Your task to perform on an android device: check google app version Image 0: 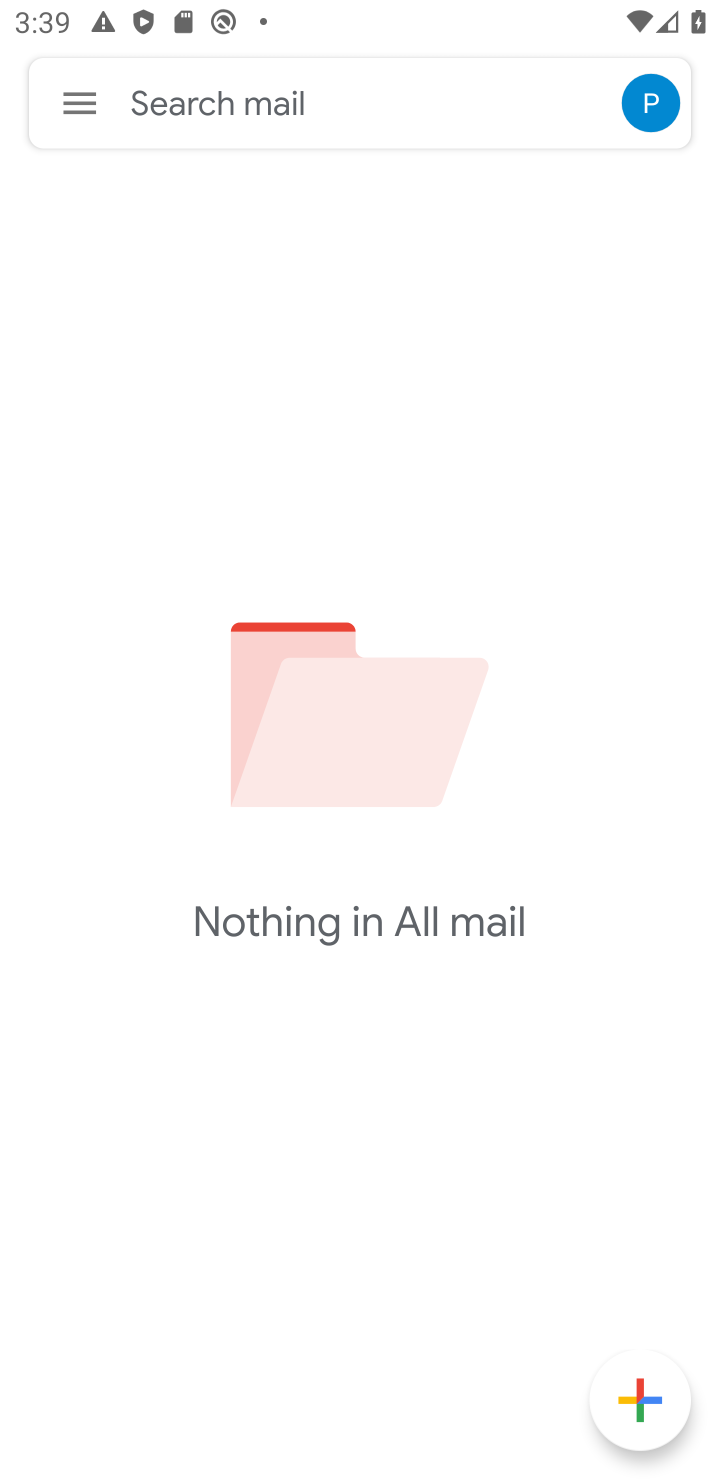
Step 0: press home button
Your task to perform on an android device: check google app version Image 1: 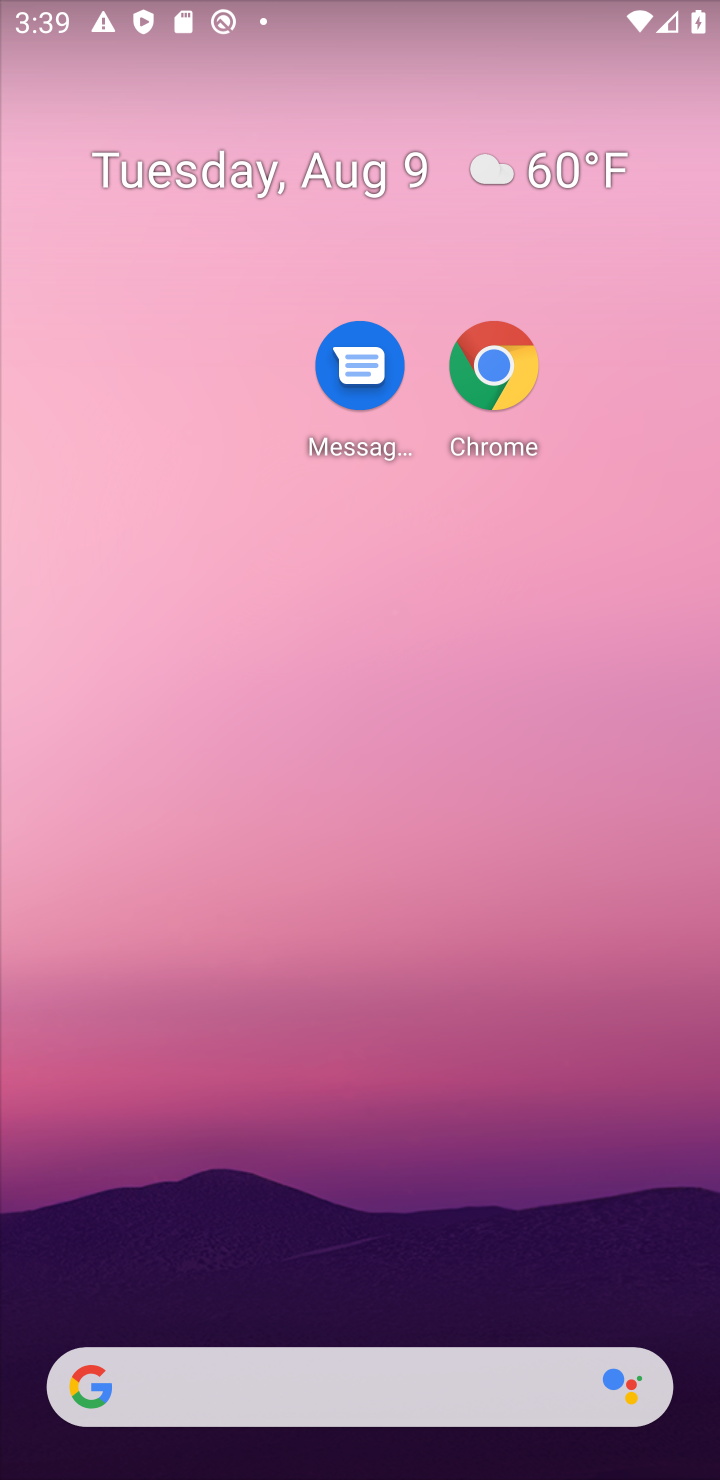
Step 1: drag from (389, 1019) to (461, 243)
Your task to perform on an android device: check google app version Image 2: 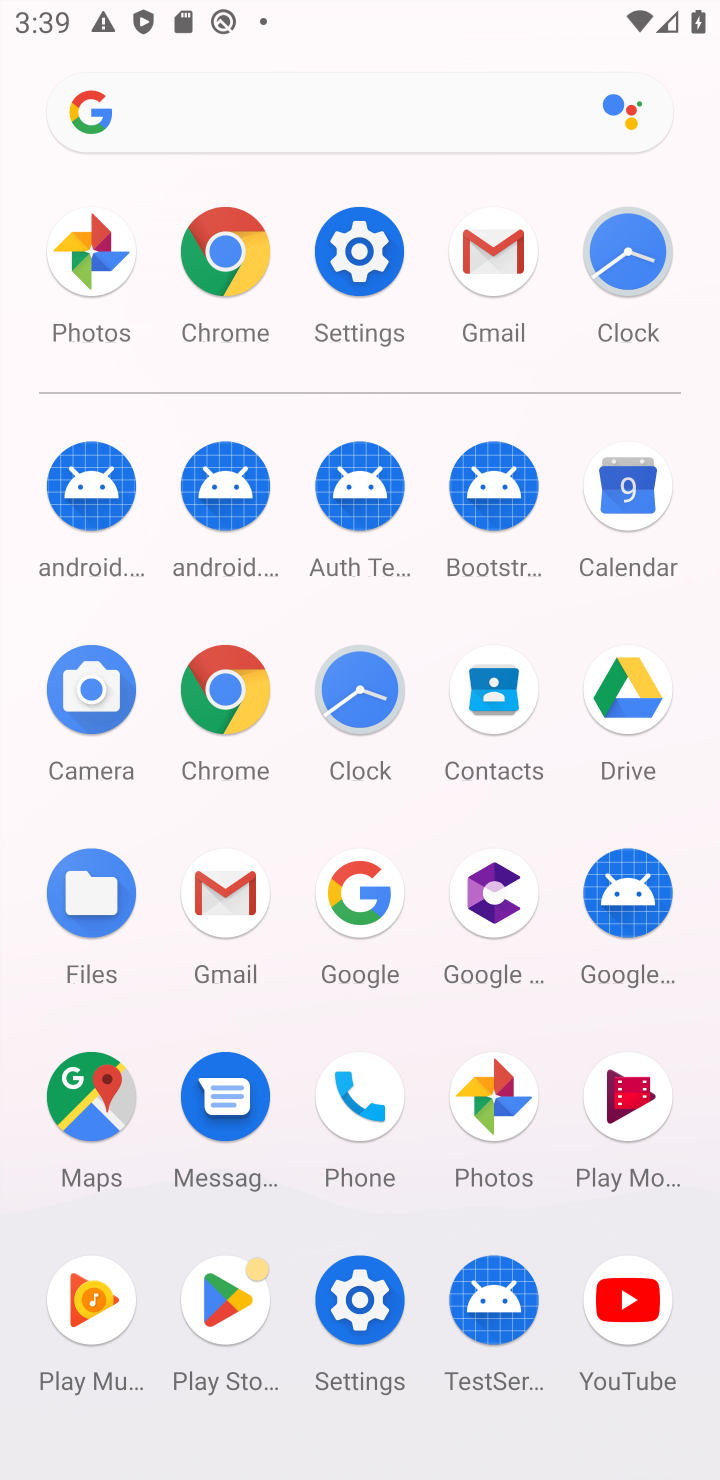
Step 2: click (375, 867)
Your task to perform on an android device: check google app version Image 3: 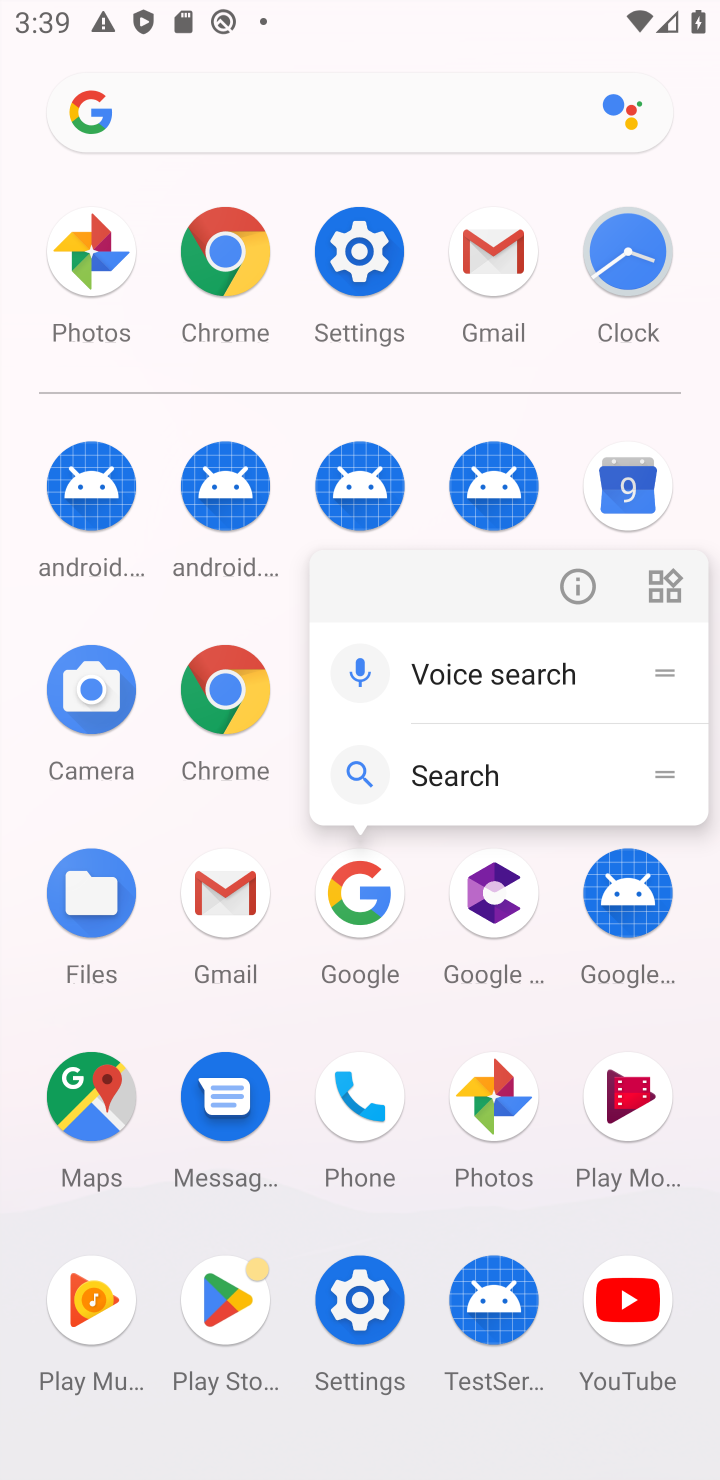
Step 3: click (356, 911)
Your task to perform on an android device: check google app version Image 4: 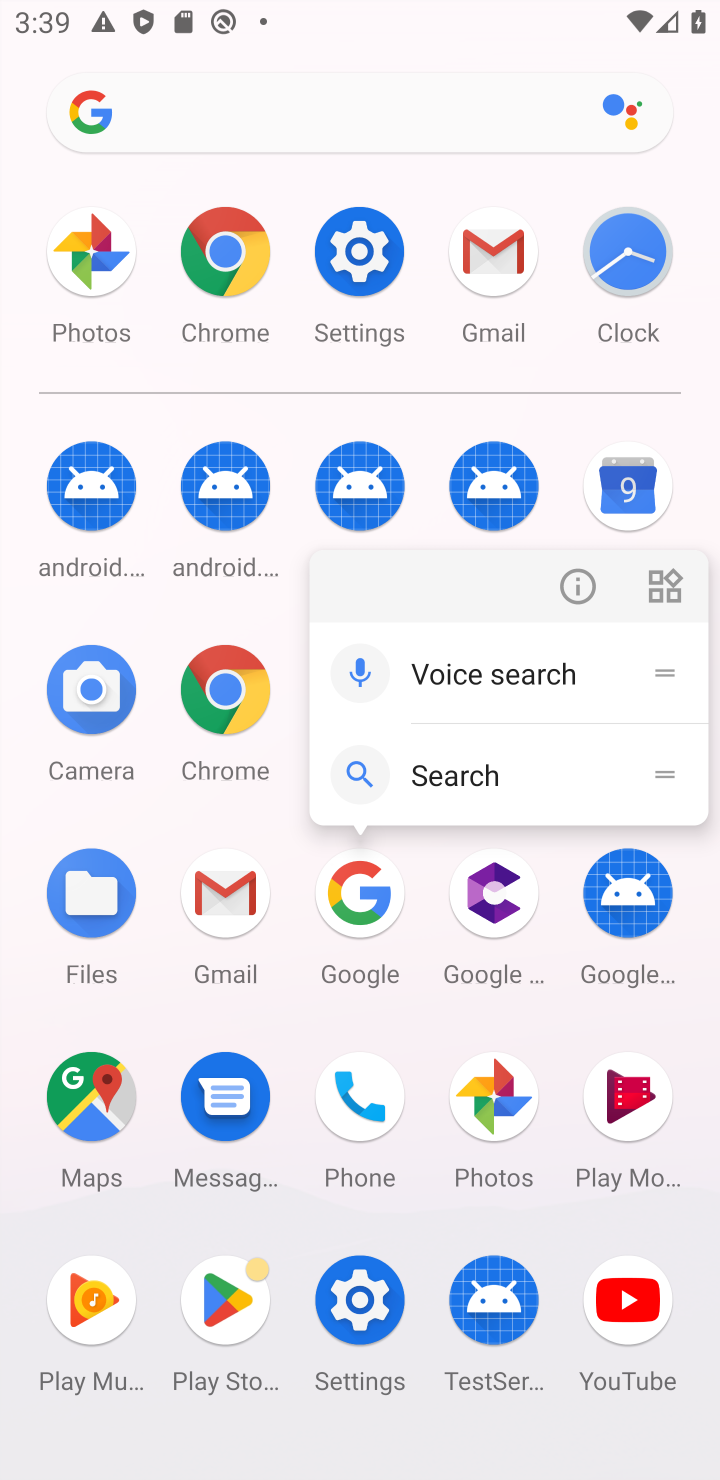
Step 4: click (356, 911)
Your task to perform on an android device: check google app version Image 5: 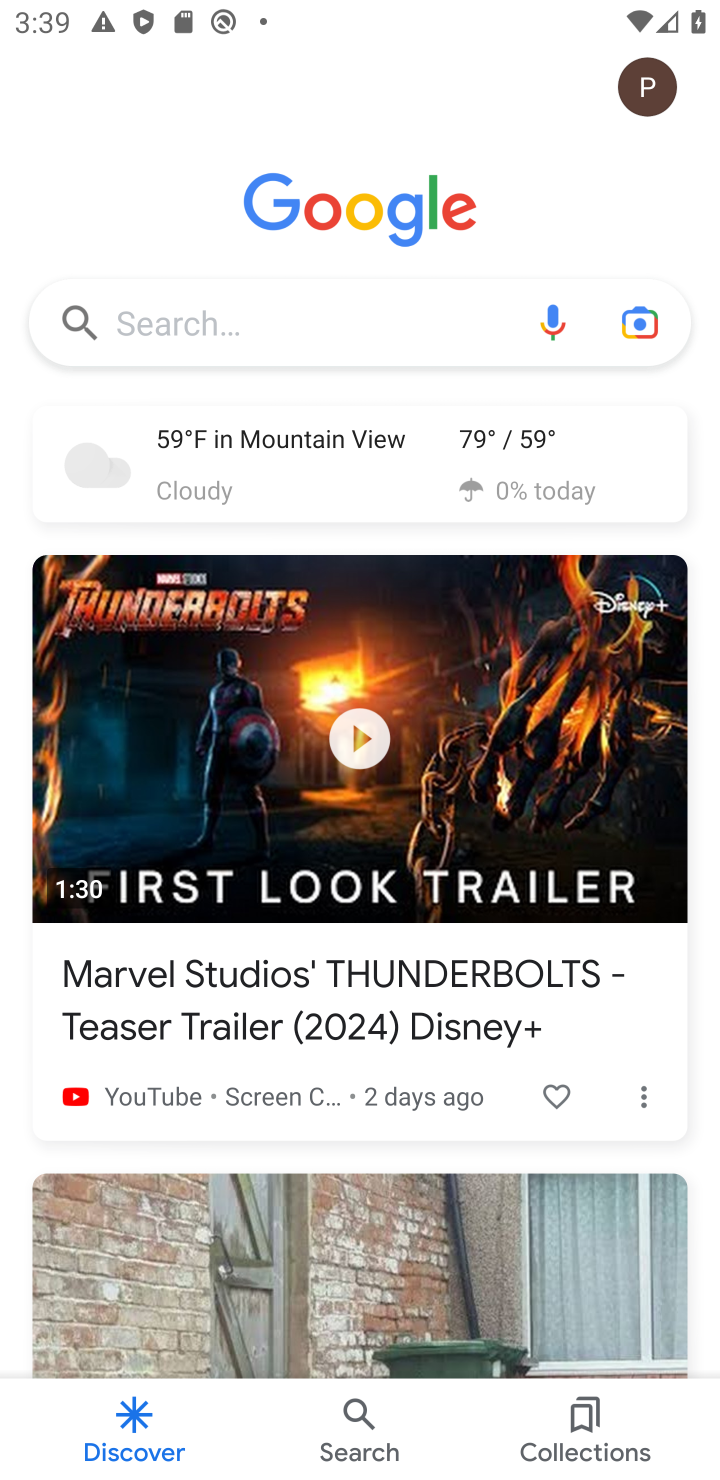
Step 5: click (667, 85)
Your task to perform on an android device: check google app version Image 6: 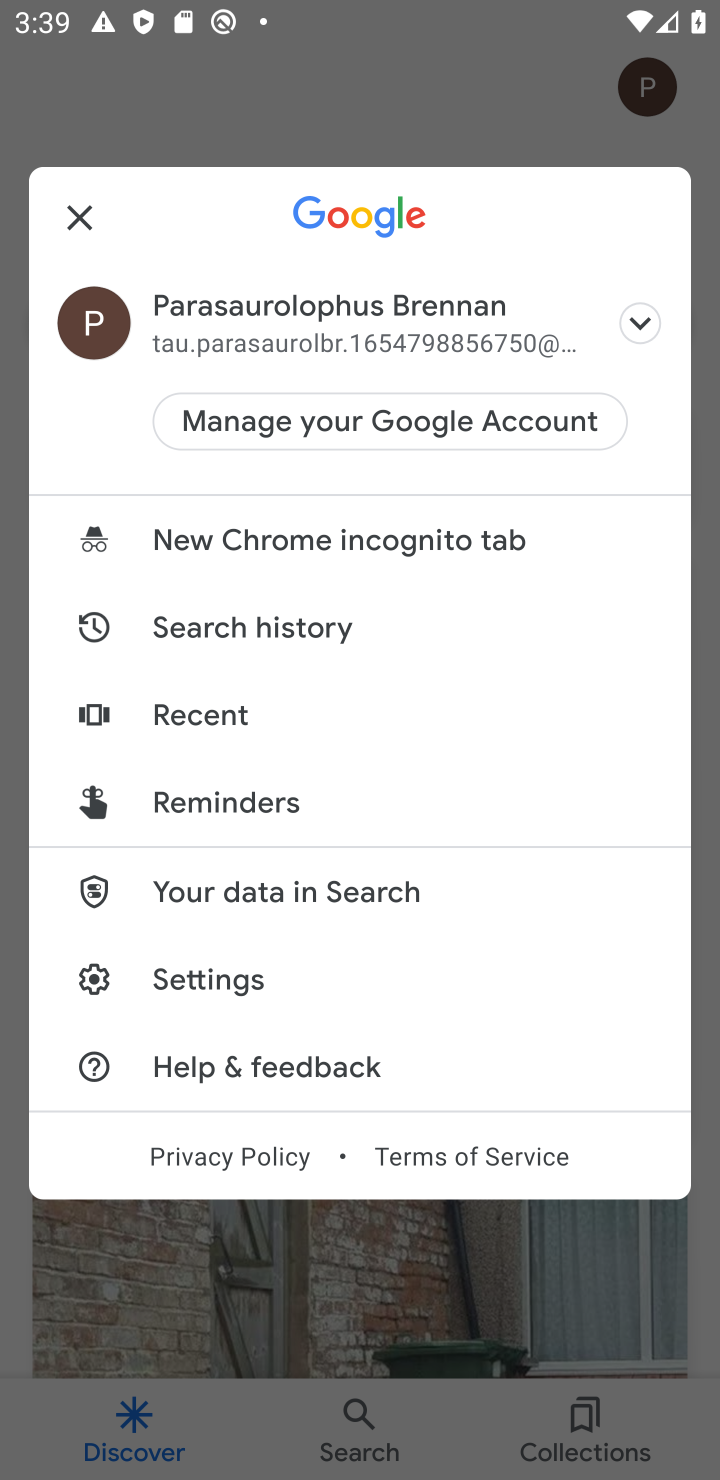
Step 6: click (213, 981)
Your task to perform on an android device: check google app version Image 7: 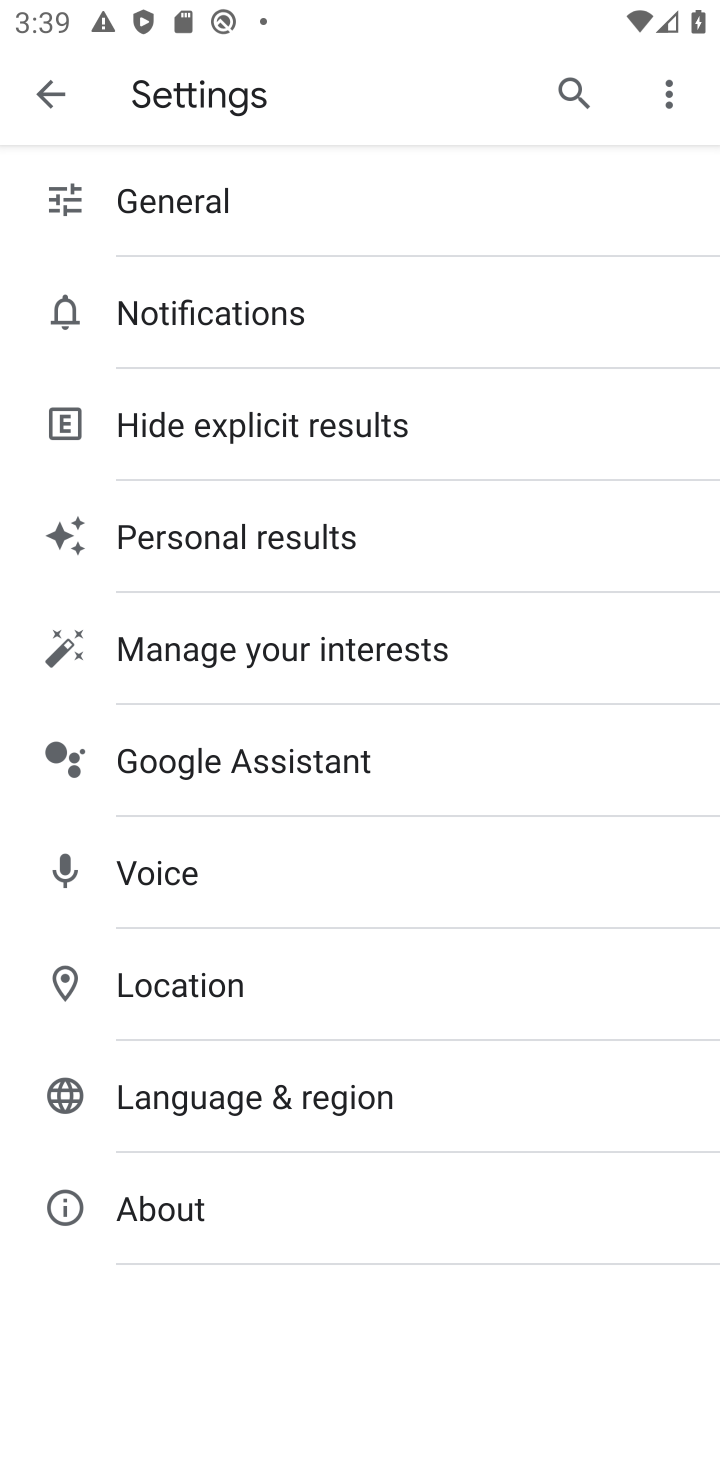
Step 7: click (195, 1207)
Your task to perform on an android device: check google app version Image 8: 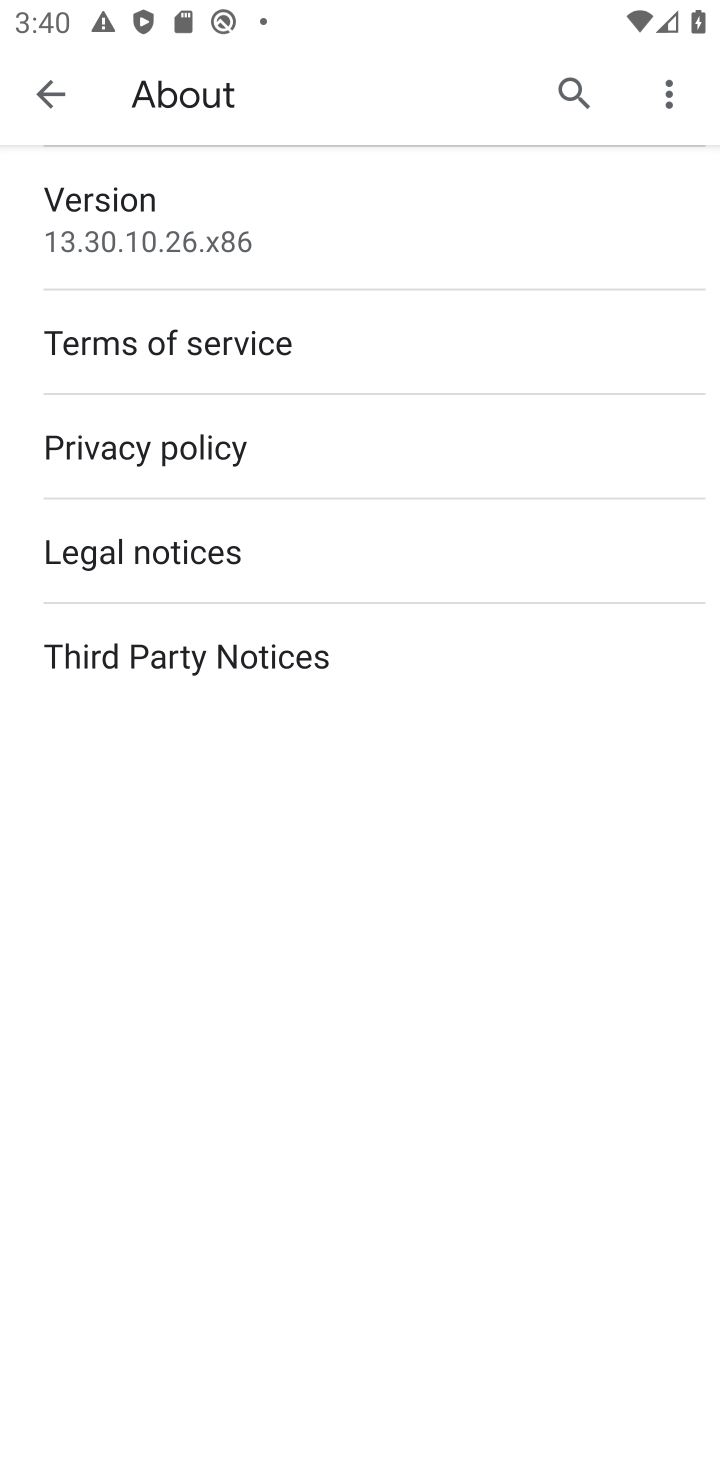
Step 8: task complete